Your task to perform on an android device: Go to location settings Image 0: 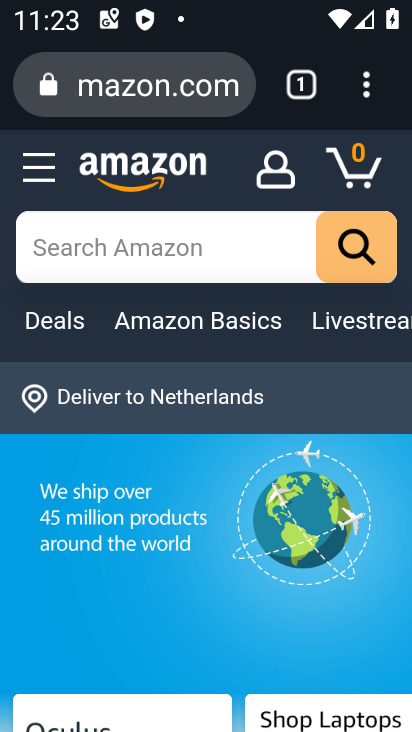
Step 0: press home button
Your task to perform on an android device: Go to location settings Image 1: 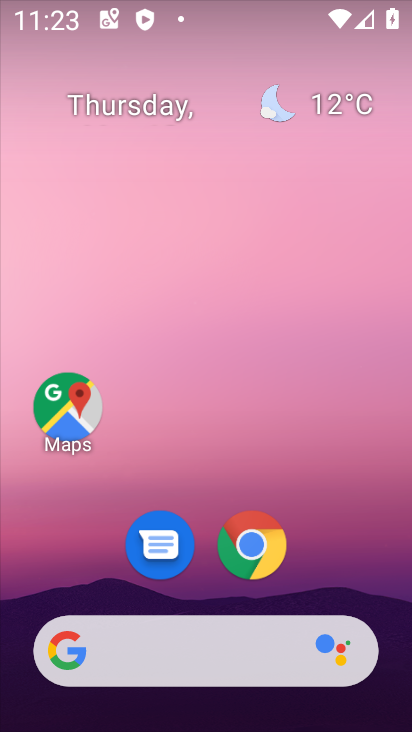
Step 1: drag from (315, 565) to (310, 123)
Your task to perform on an android device: Go to location settings Image 2: 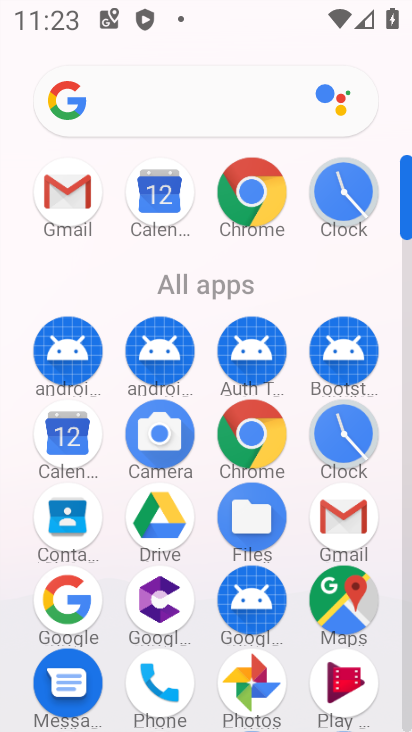
Step 2: drag from (217, 607) to (231, 281)
Your task to perform on an android device: Go to location settings Image 3: 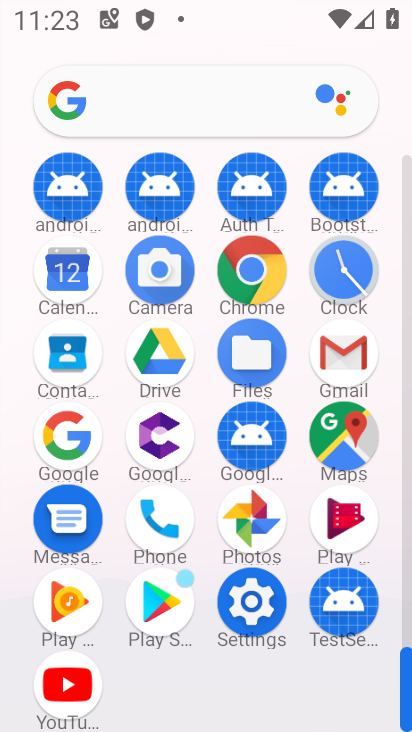
Step 3: click (259, 594)
Your task to perform on an android device: Go to location settings Image 4: 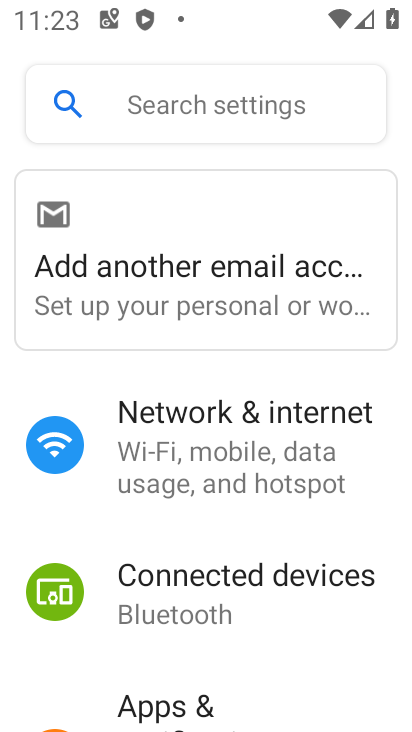
Step 4: drag from (223, 610) to (288, 213)
Your task to perform on an android device: Go to location settings Image 5: 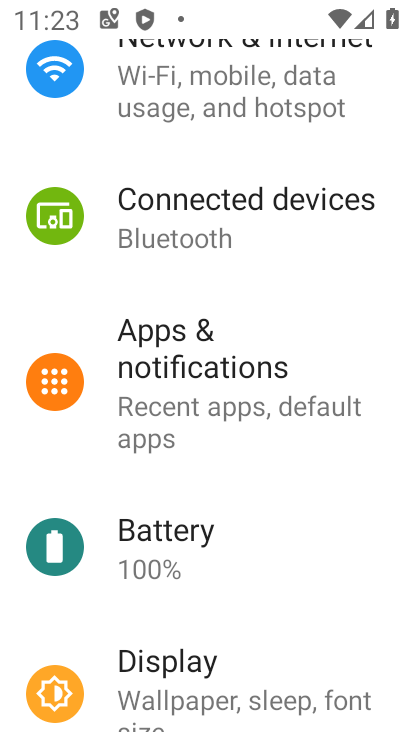
Step 5: drag from (247, 649) to (271, 206)
Your task to perform on an android device: Go to location settings Image 6: 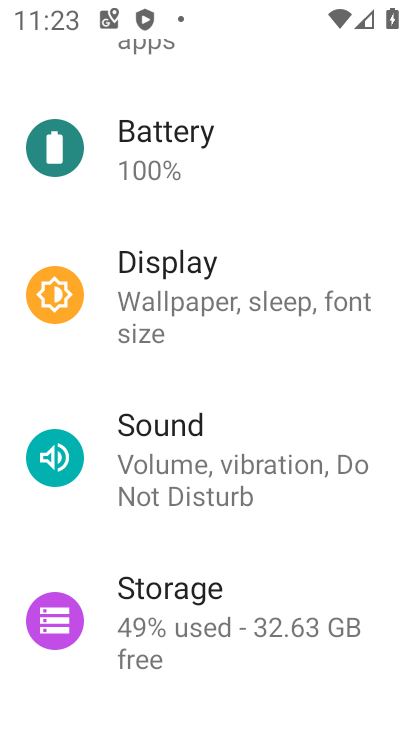
Step 6: drag from (261, 668) to (288, 247)
Your task to perform on an android device: Go to location settings Image 7: 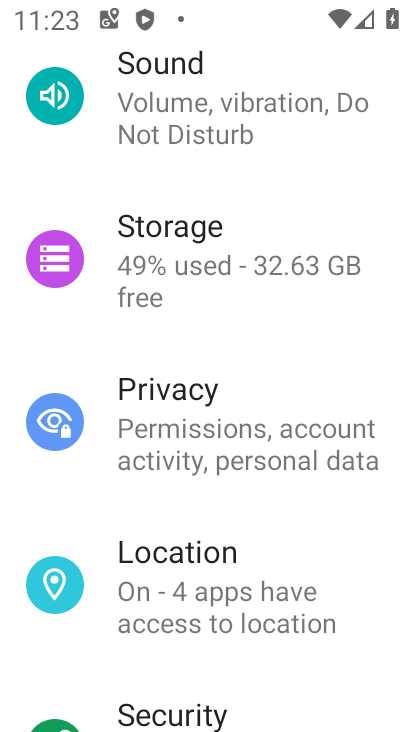
Step 7: click (238, 597)
Your task to perform on an android device: Go to location settings Image 8: 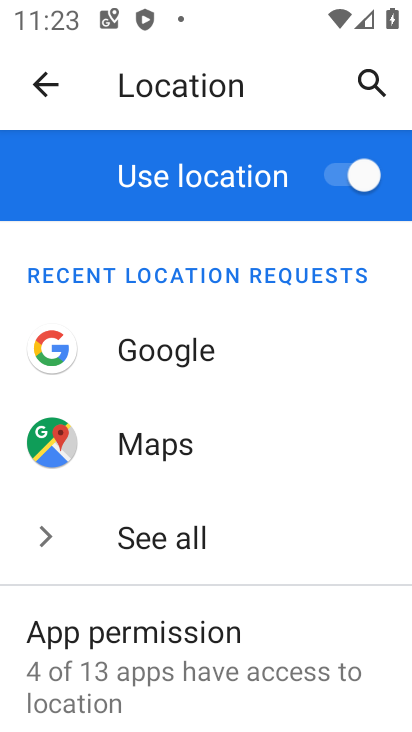
Step 8: task complete